Your task to perform on an android device: change notification settings in the gmail app Image 0: 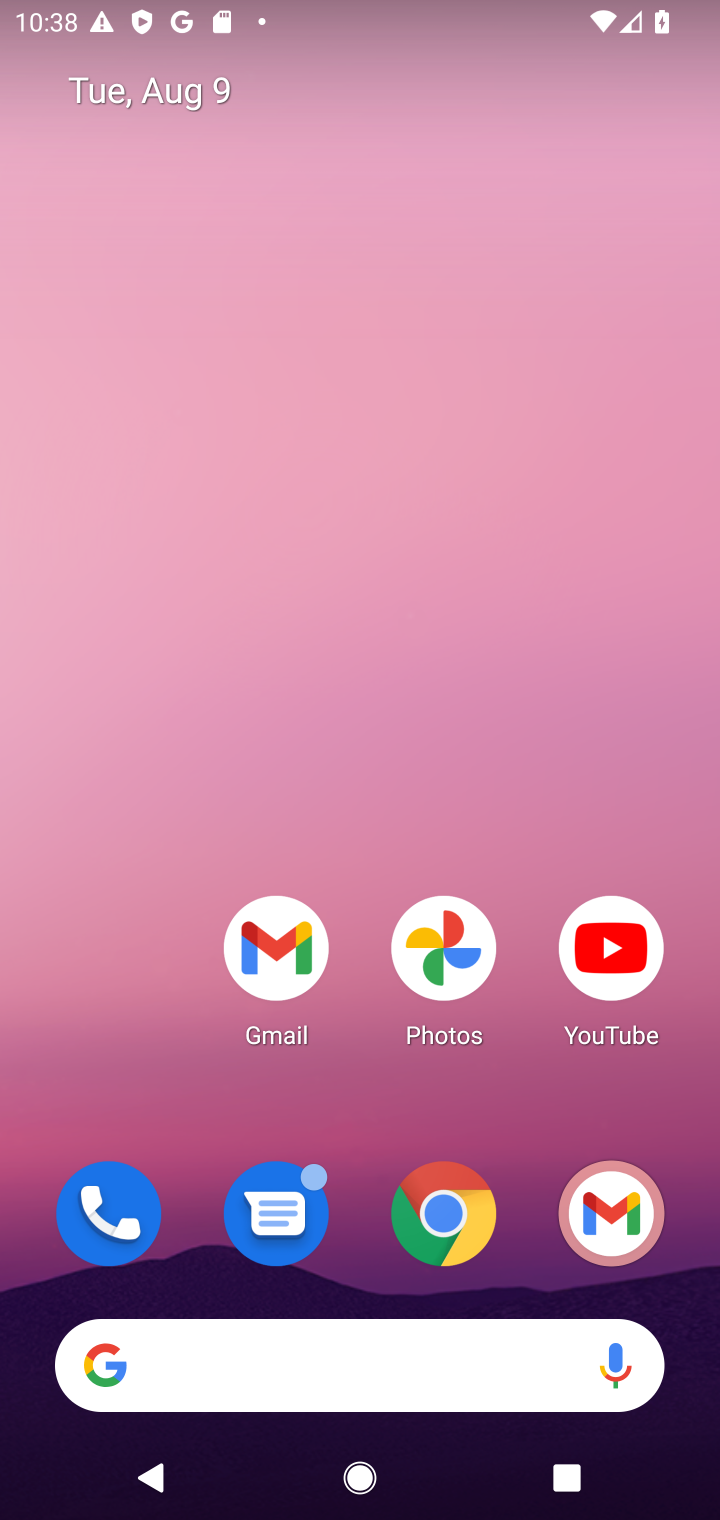
Step 0: drag from (330, 1280) to (176, 96)
Your task to perform on an android device: change notification settings in the gmail app Image 1: 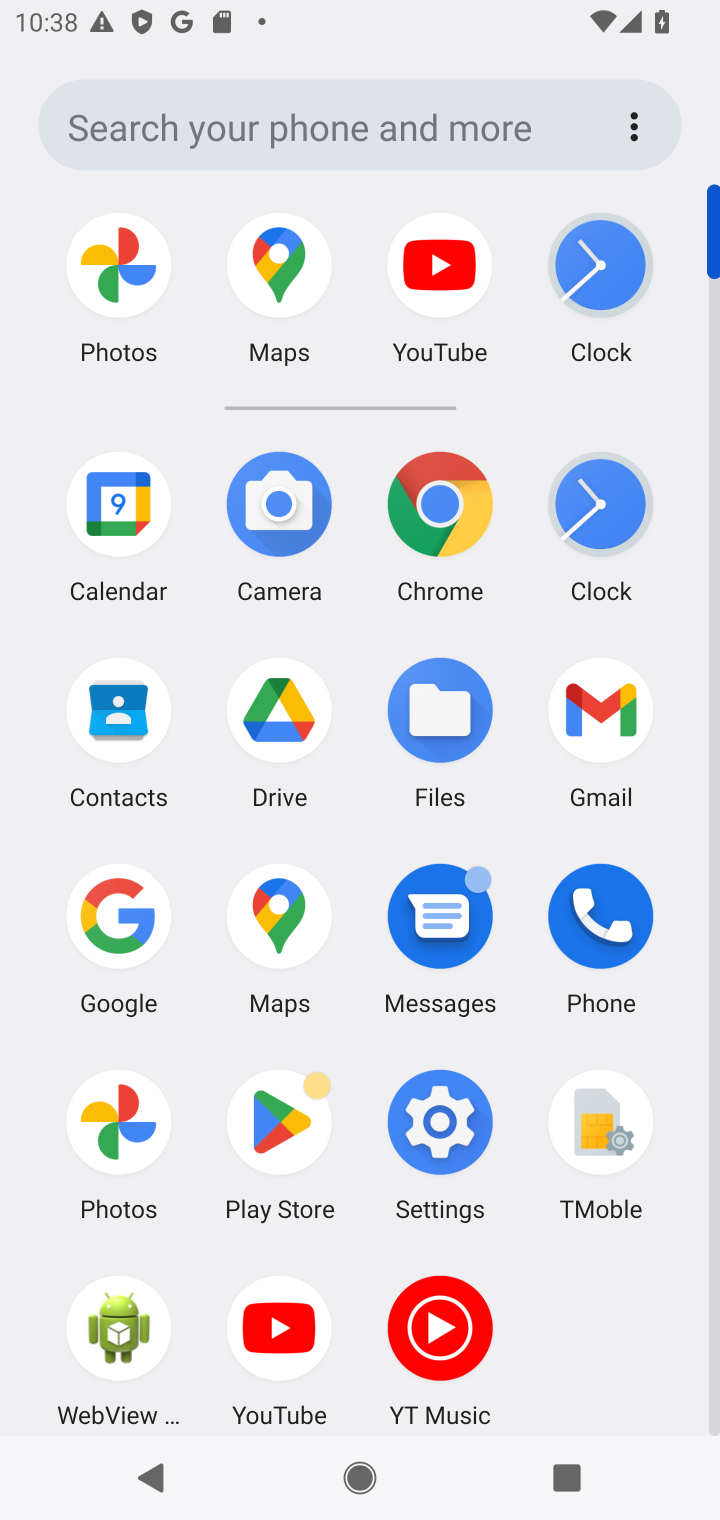
Step 1: click (617, 744)
Your task to perform on an android device: change notification settings in the gmail app Image 2: 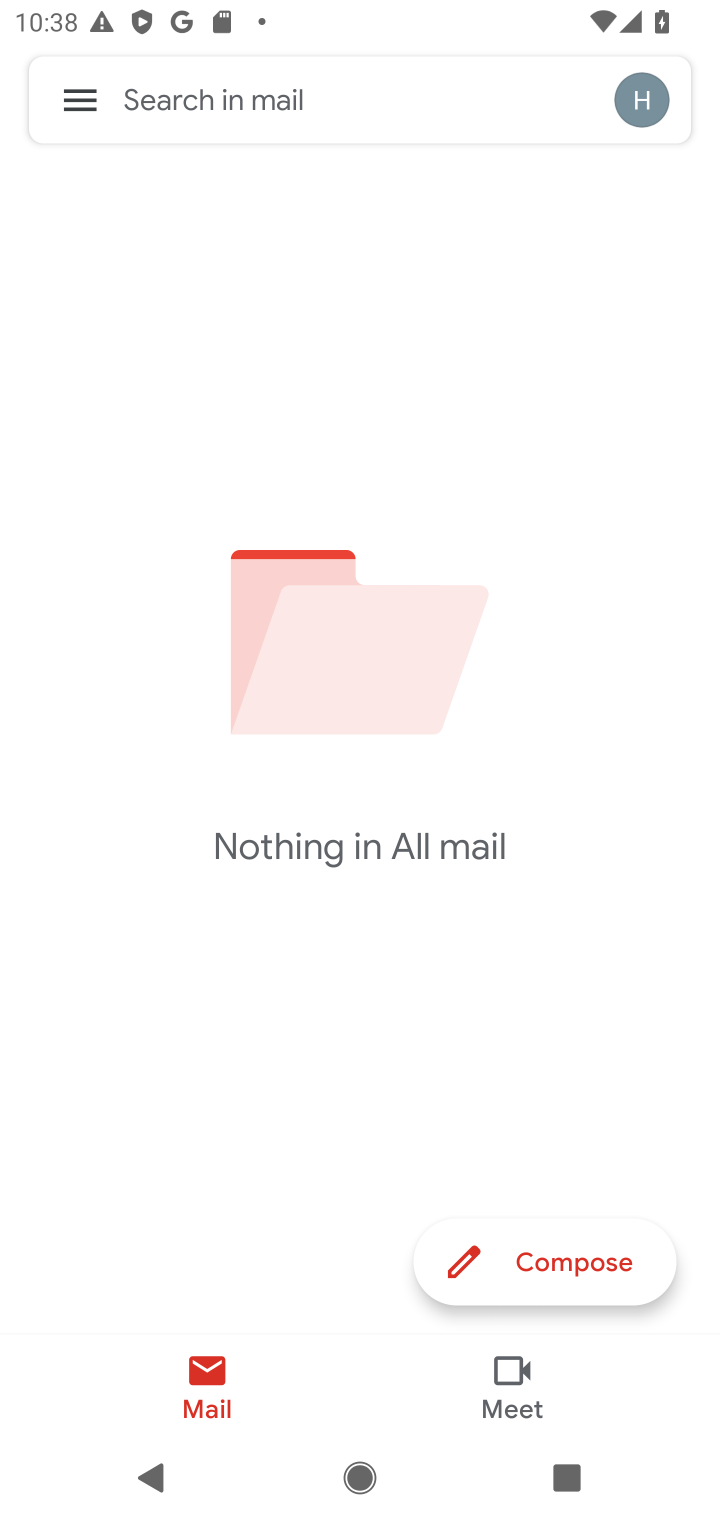
Step 2: click (94, 74)
Your task to perform on an android device: change notification settings in the gmail app Image 3: 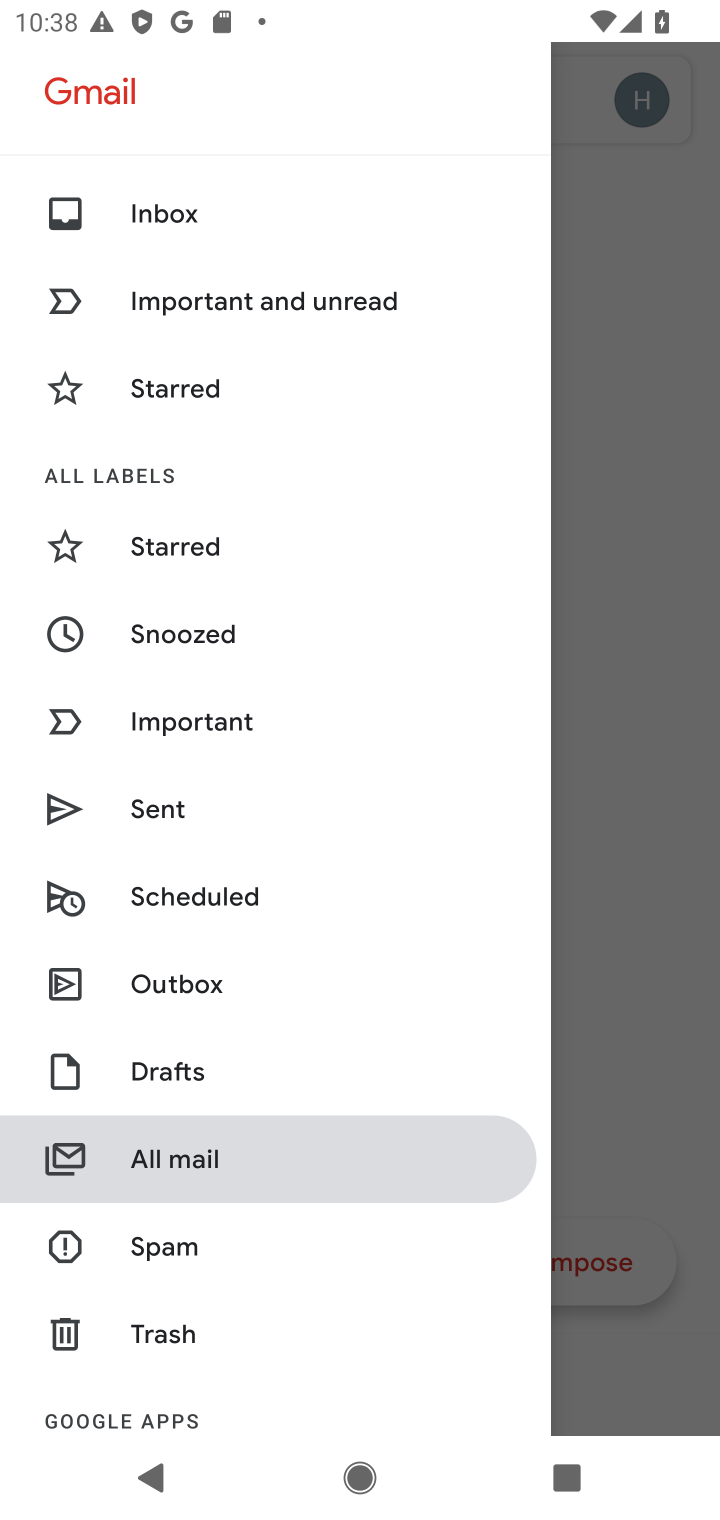
Step 3: drag from (212, 1313) to (218, 489)
Your task to perform on an android device: change notification settings in the gmail app Image 4: 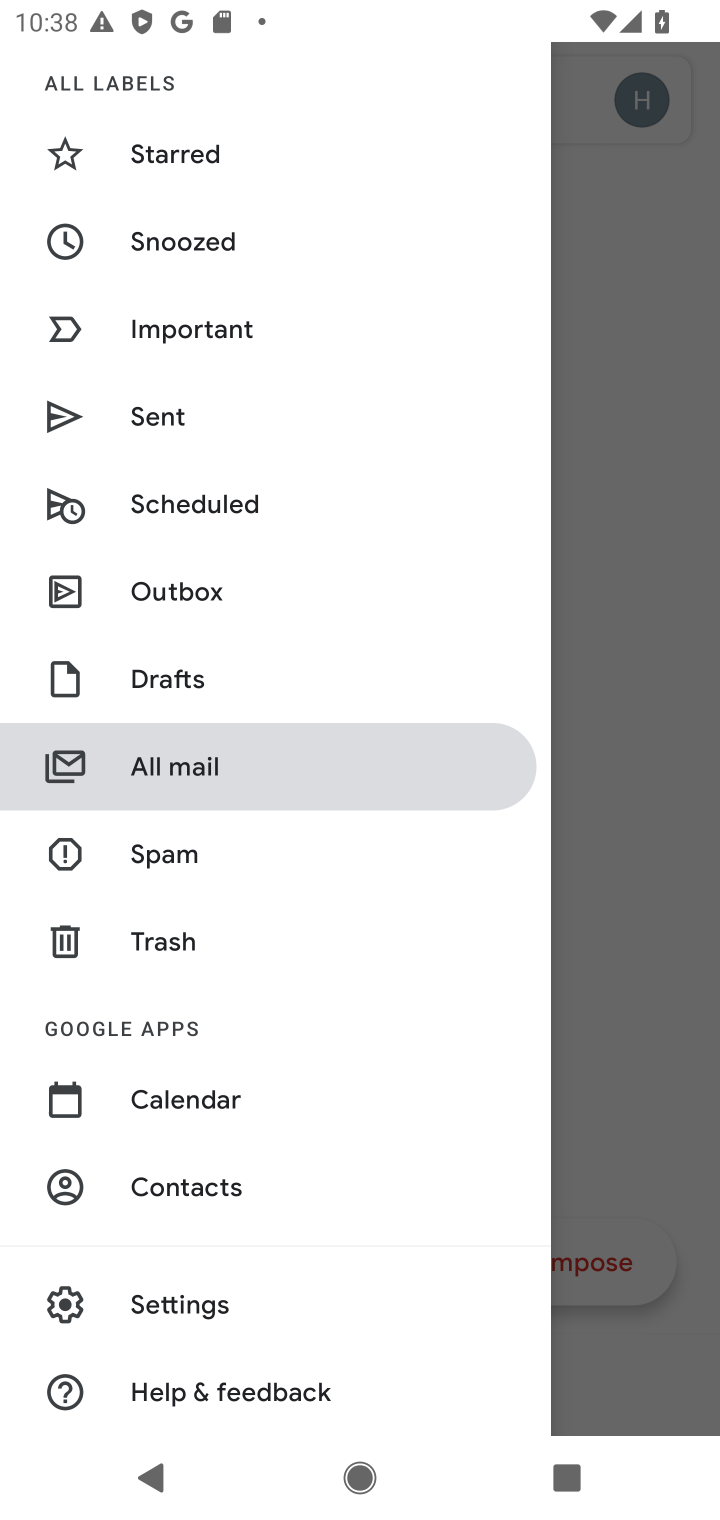
Step 4: click (216, 1293)
Your task to perform on an android device: change notification settings in the gmail app Image 5: 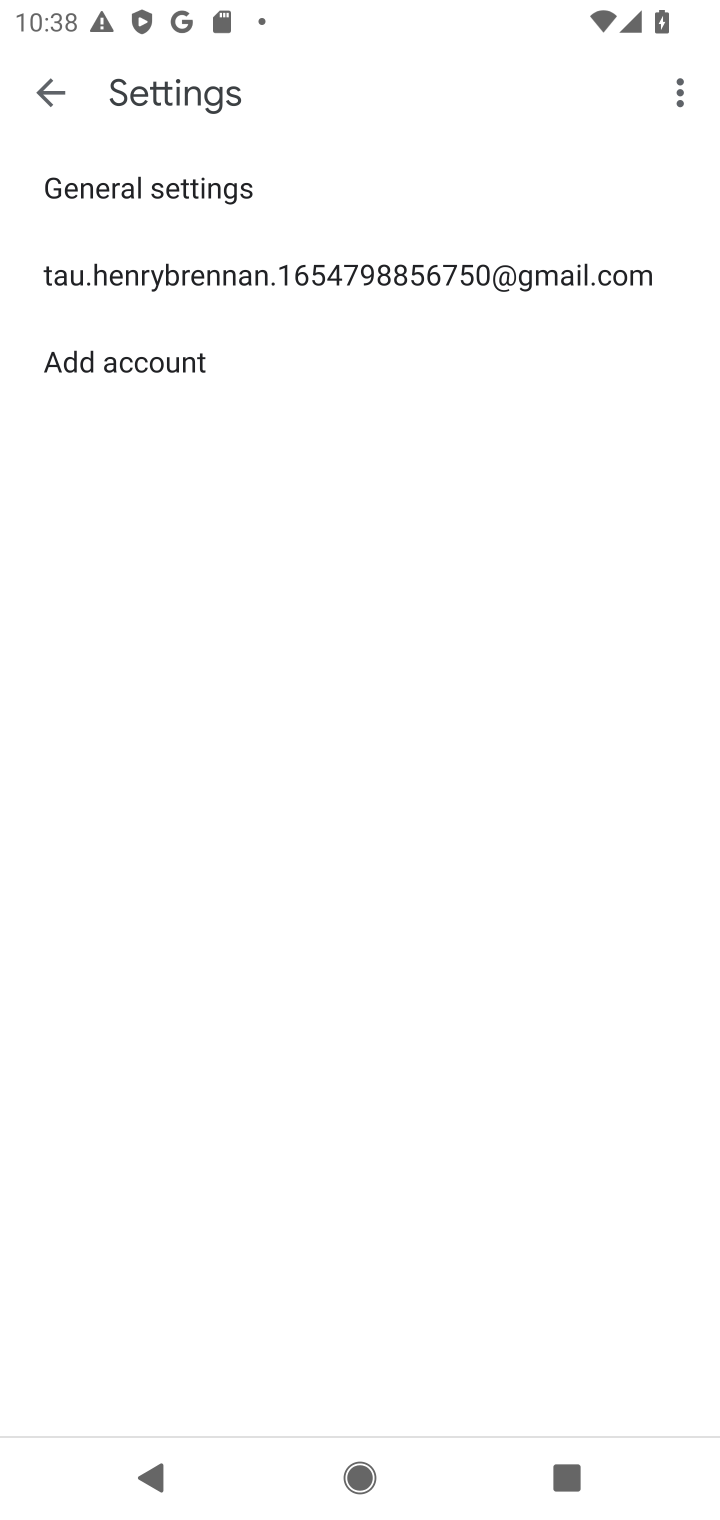
Step 5: click (167, 175)
Your task to perform on an android device: change notification settings in the gmail app Image 6: 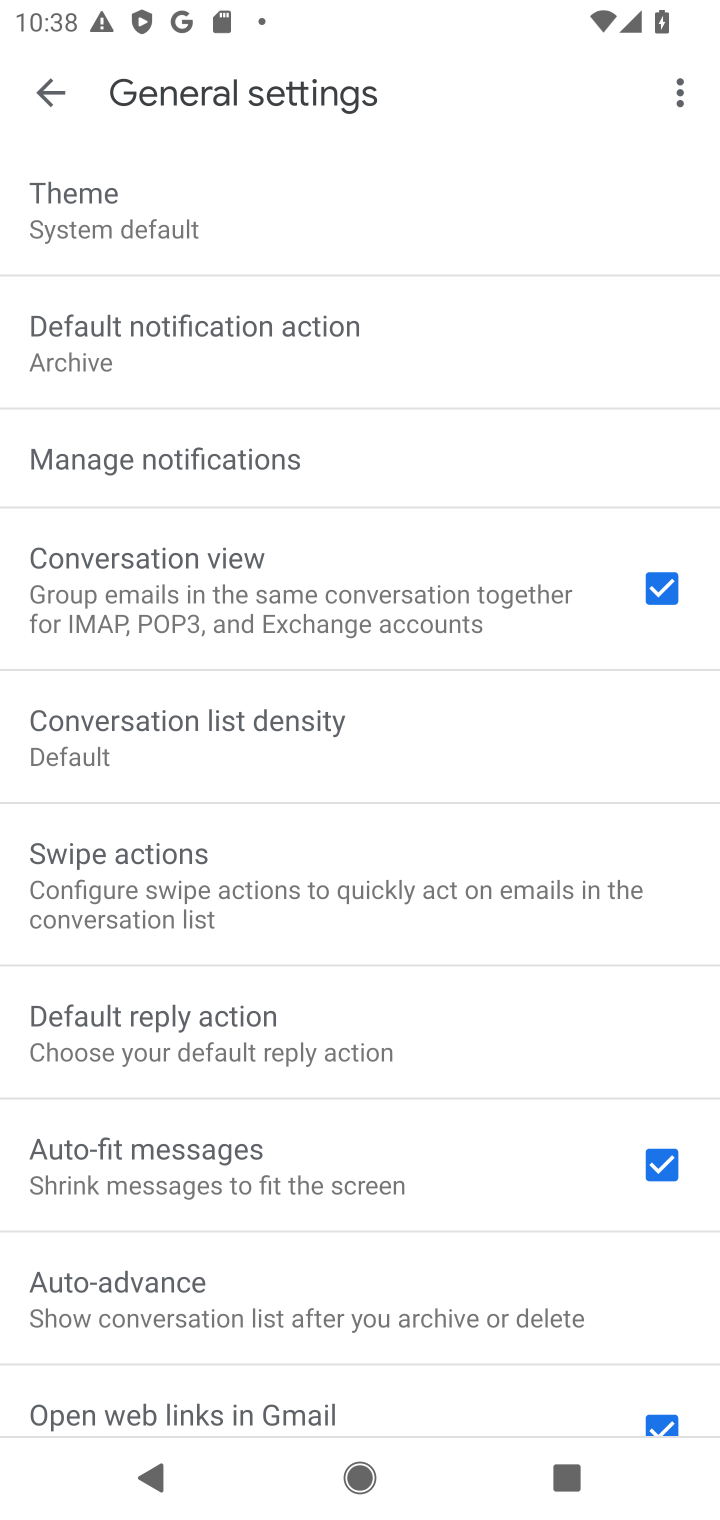
Step 6: click (169, 438)
Your task to perform on an android device: change notification settings in the gmail app Image 7: 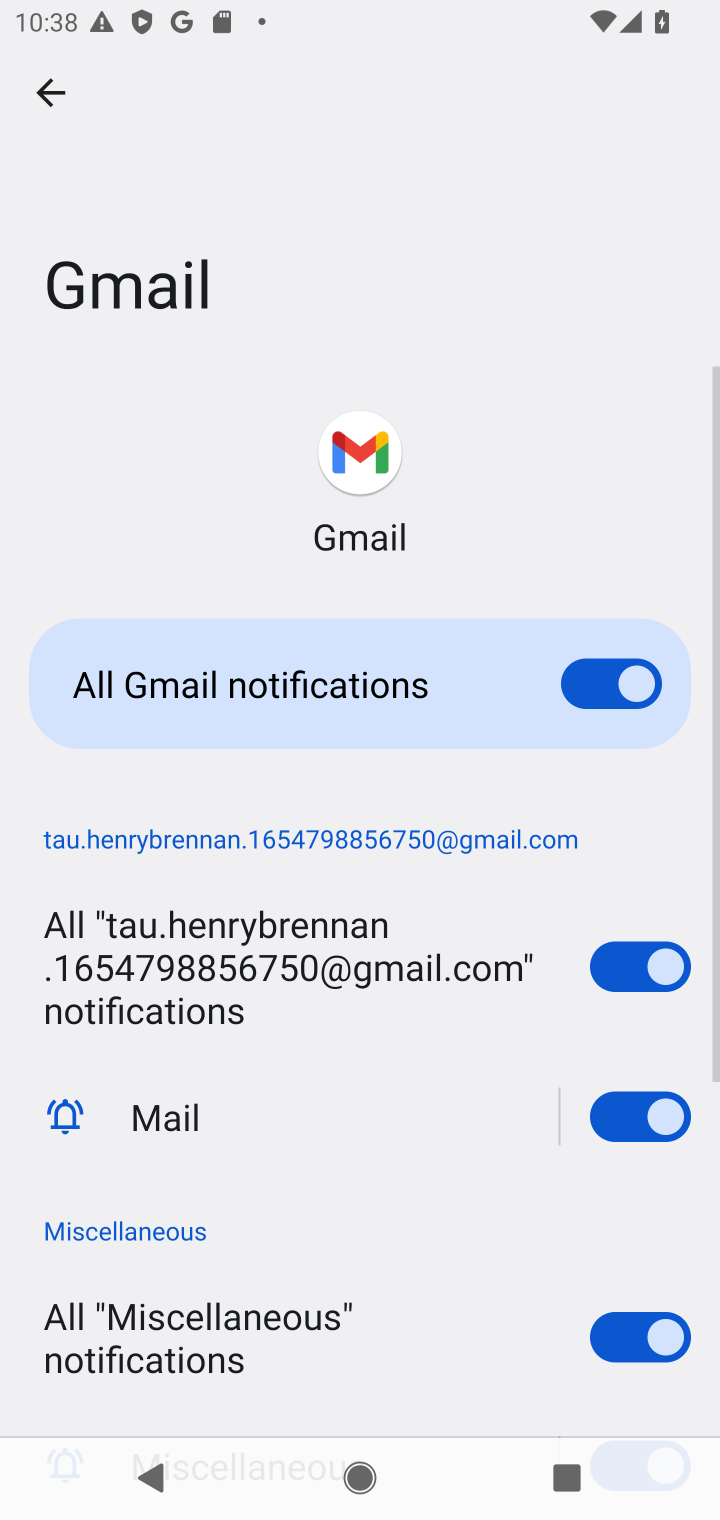
Step 7: click (628, 674)
Your task to perform on an android device: change notification settings in the gmail app Image 8: 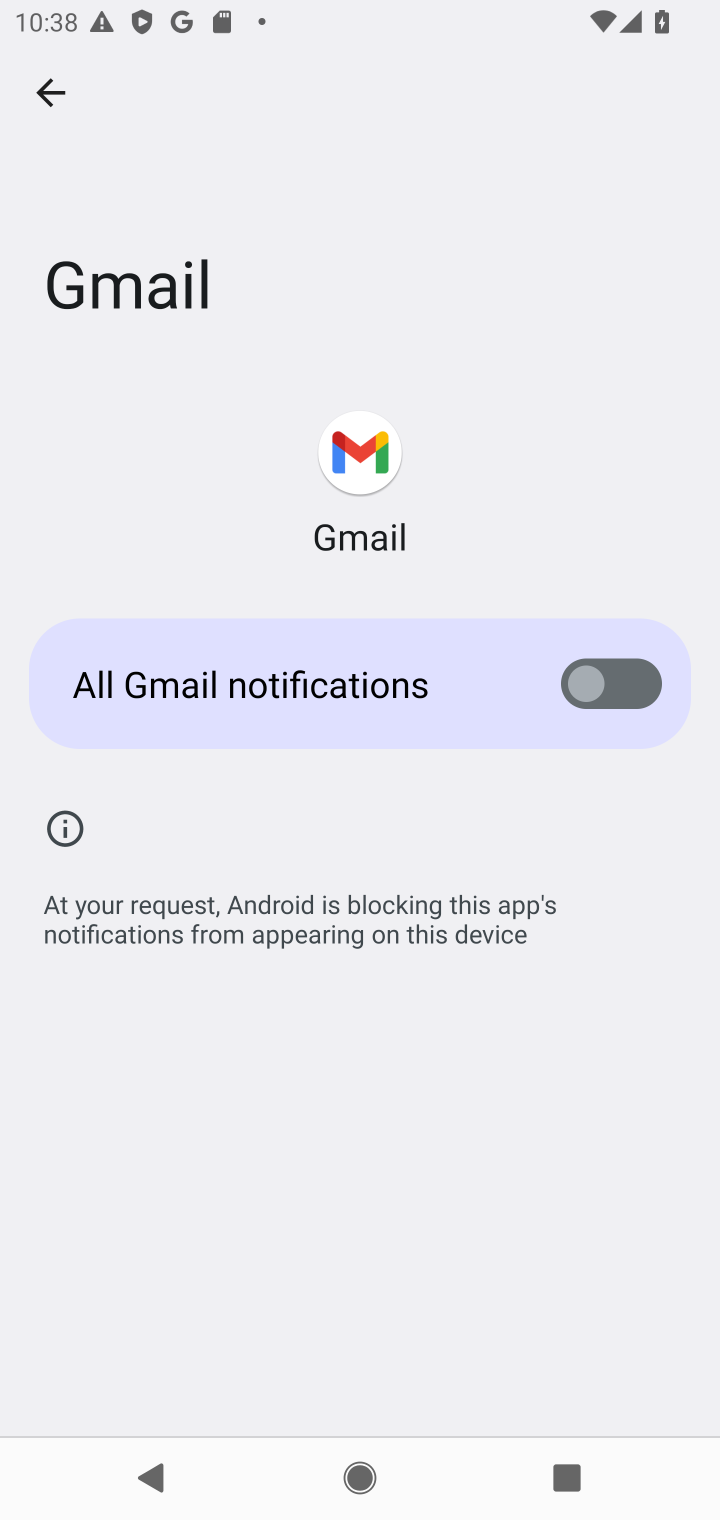
Step 8: task complete